Your task to perform on an android device: Open battery settings Image 0: 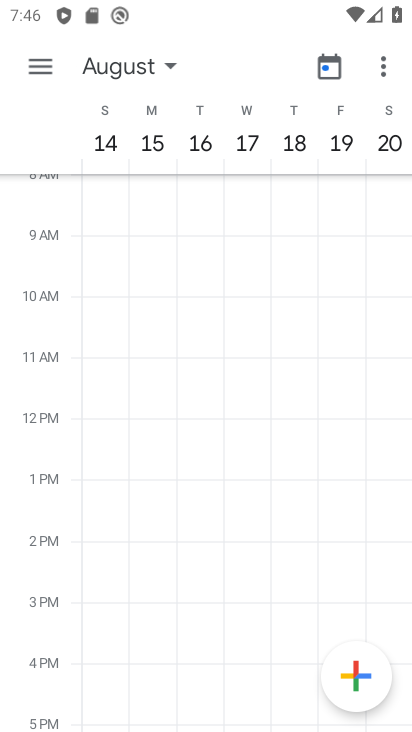
Step 0: press home button
Your task to perform on an android device: Open battery settings Image 1: 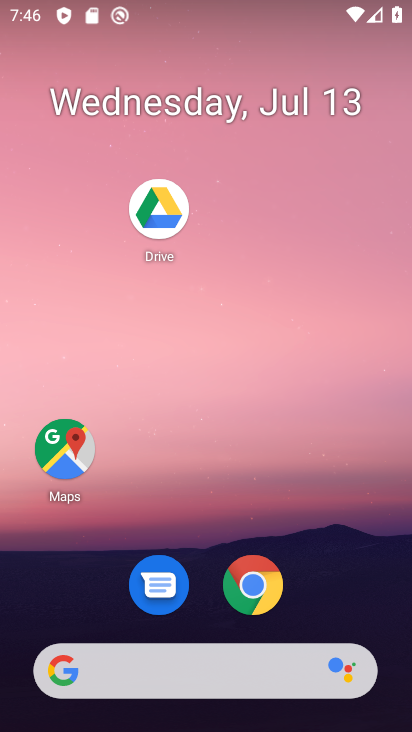
Step 1: drag from (188, 666) to (294, 99)
Your task to perform on an android device: Open battery settings Image 2: 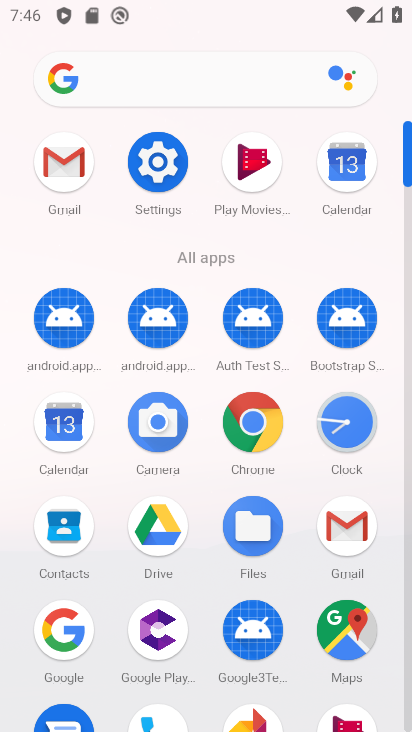
Step 2: click (148, 167)
Your task to perform on an android device: Open battery settings Image 3: 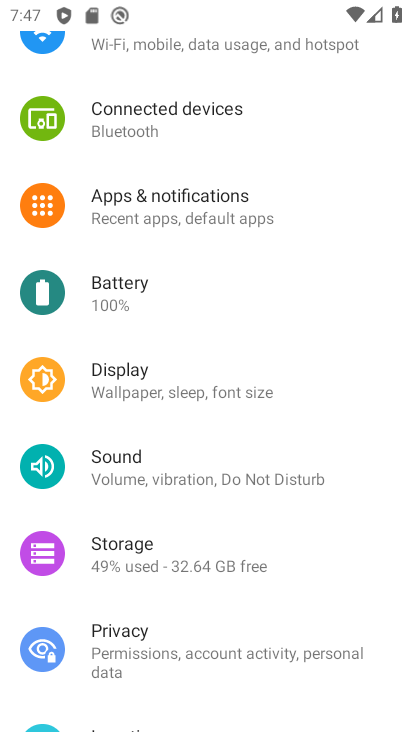
Step 3: click (122, 281)
Your task to perform on an android device: Open battery settings Image 4: 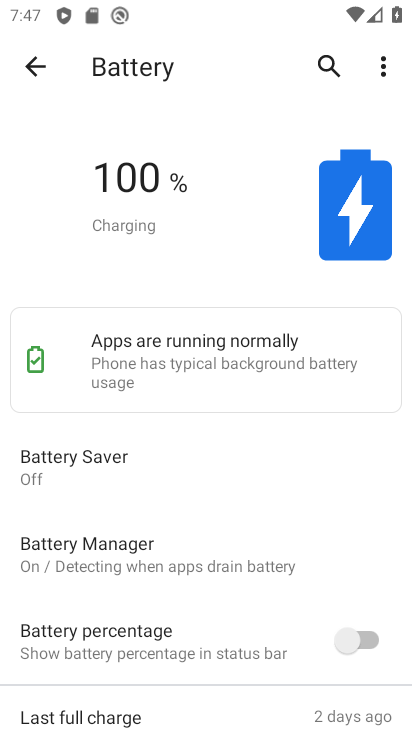
Step 4: task complete